Your task to perform on an android device: set default search engine in the chrome app Image 0: 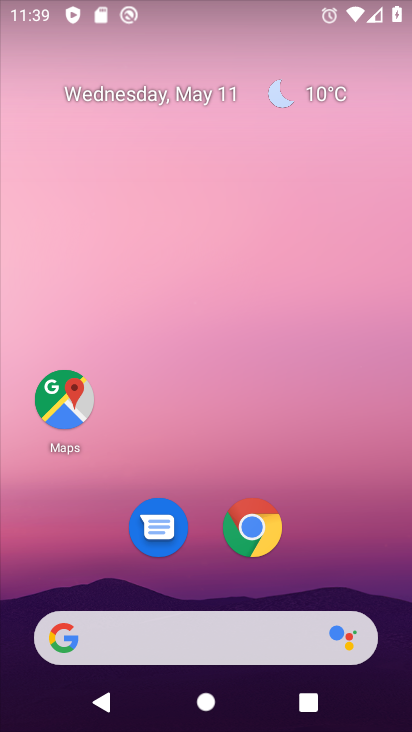
Step 0: click (251, 523)
Your task to perform on an android device: set default search engine in the chrome app Image 1: 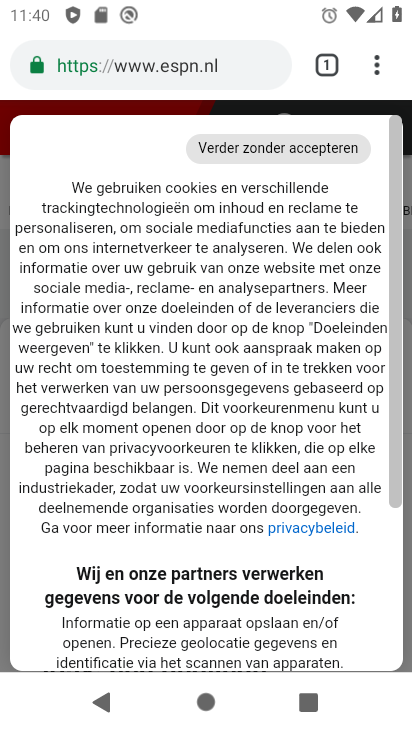
Step 1: click (376, 74)
Your task to perform on an android device: set default search engine in the chrome app Image 2: 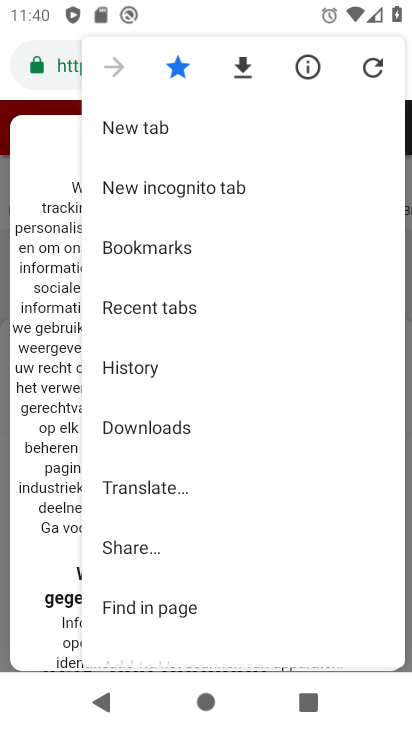
Step 2: drag from (129, 578) to (169, 322)
Your task to perform on an android device: set default search engine in the chrome app Image 3: 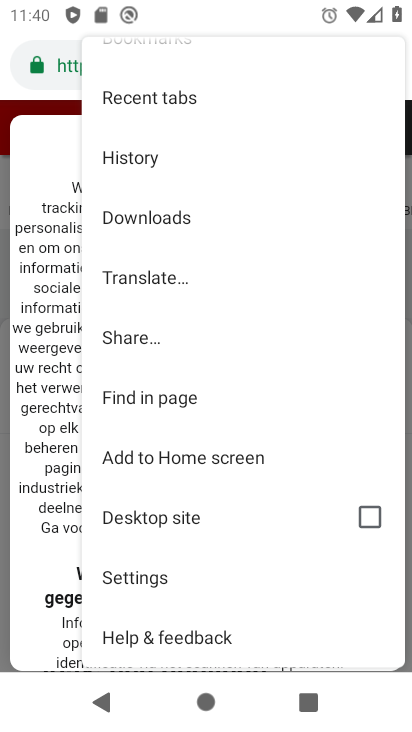
Step 3: click (136, 585)
Your task to perform on an android device: set default search engine in the chrome app Image 4: 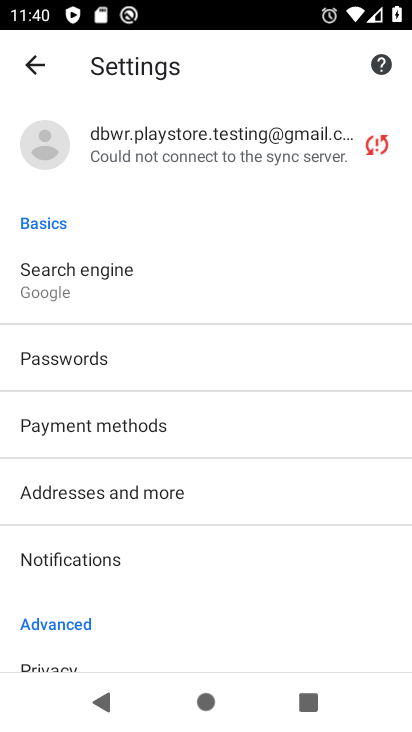
Step 4: click (120, 280)
Your task to perform on an android device: set default search engine in the chrome app Image 5: 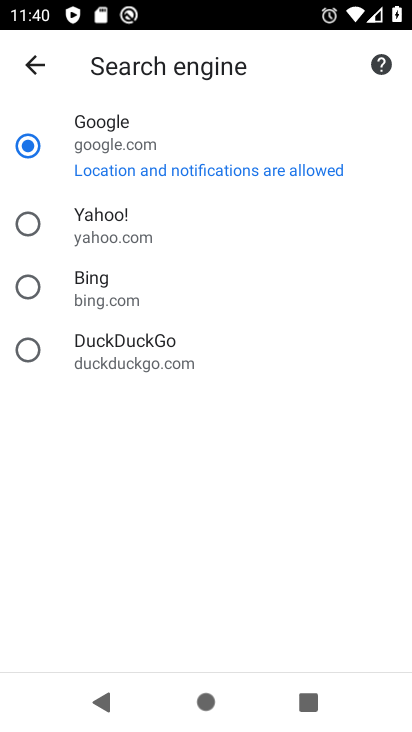
Step 5: click (44, 227)
Your task to perform on an android device: set default search engine in the chrome app Image 6: 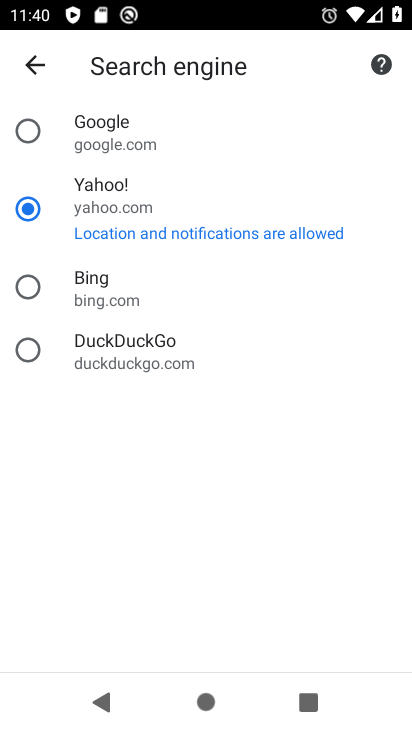
Step 6: task complete